Your task to perform on an android device: open sync settings in chrome Image 0: 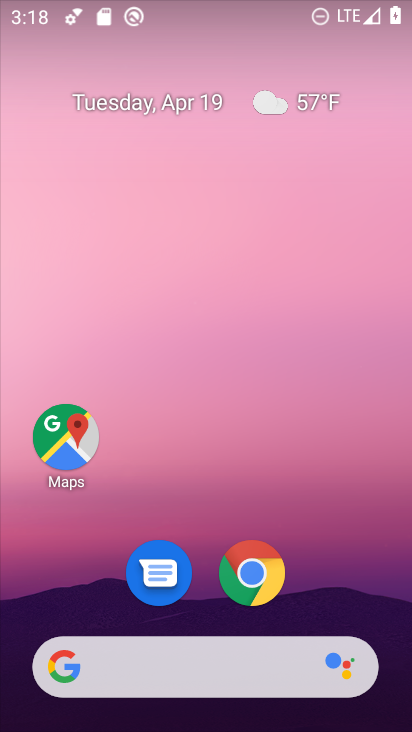
Step 0: click (241, 582)
Your task to perform on an android device: open sync settings in chrome Image 1: 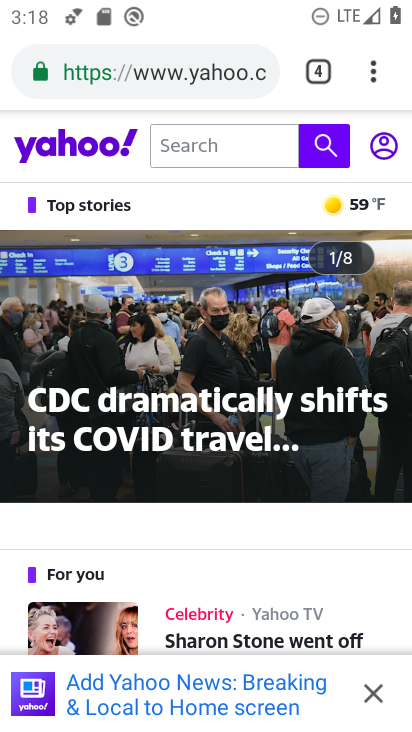
Step 1: click (373, 66)
Your task to perform on an android device: open sync settings in chrome Image 2: 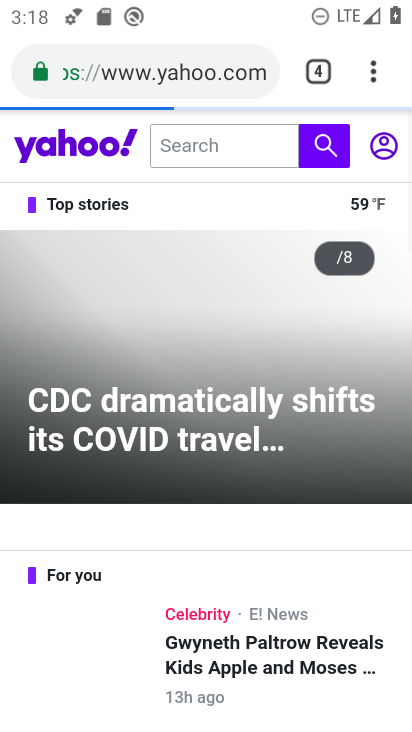
Step 2: click (373, 66)
Your task to perform on an android device: open sync settings in chrome Image 3: 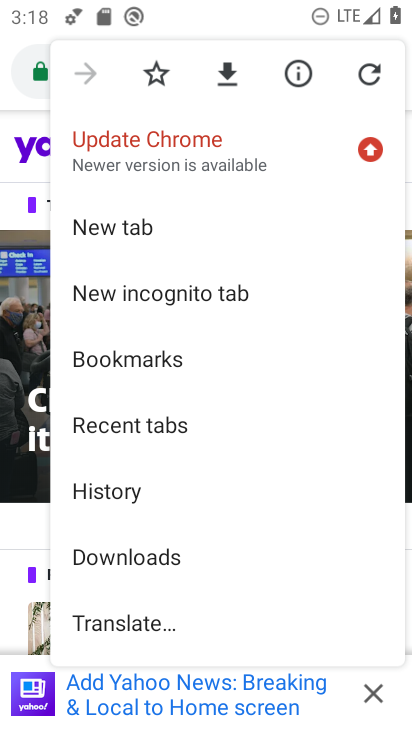
Step 3: drag from (324, 554) to (323, 120)
Your task to perform on an android device: open sync settings in chrome Image 4: 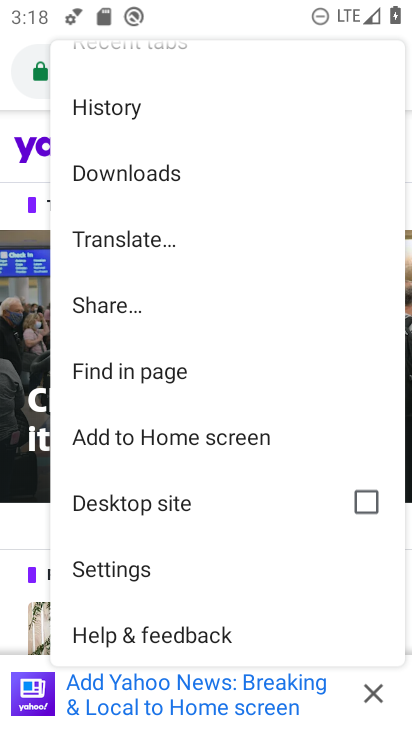
Step 4: click (134, 568)
Your task to perform on an android device: open sync settings in chrome Image 5: 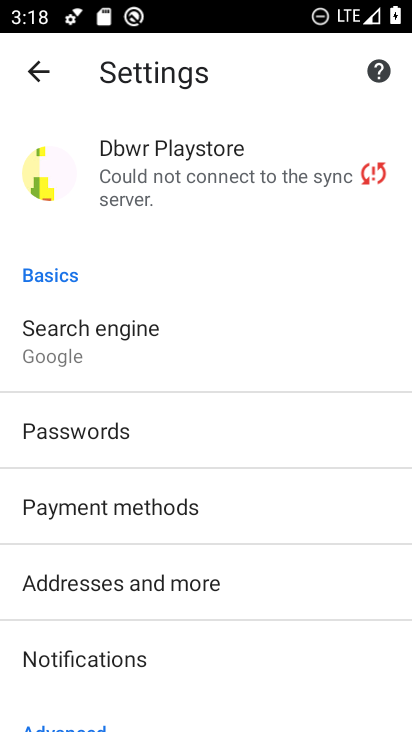
Step 5: click (124, 185)
Your task to perform on an android device: open sync settings in chrome Image 6: 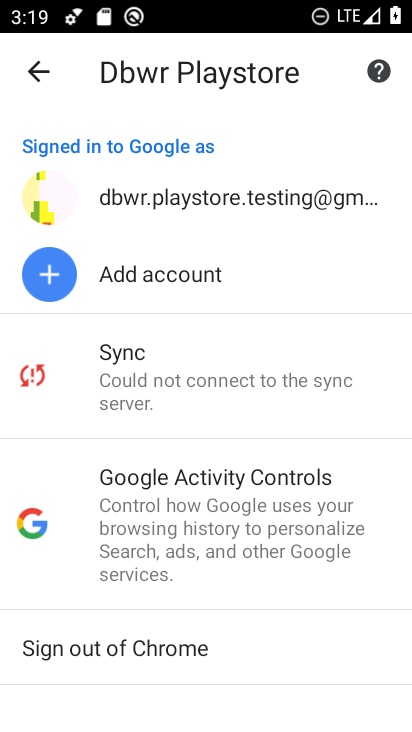
Step 6: click (153, 379)
Your task to perform on an android device: open sync settings in chrome Image 7: 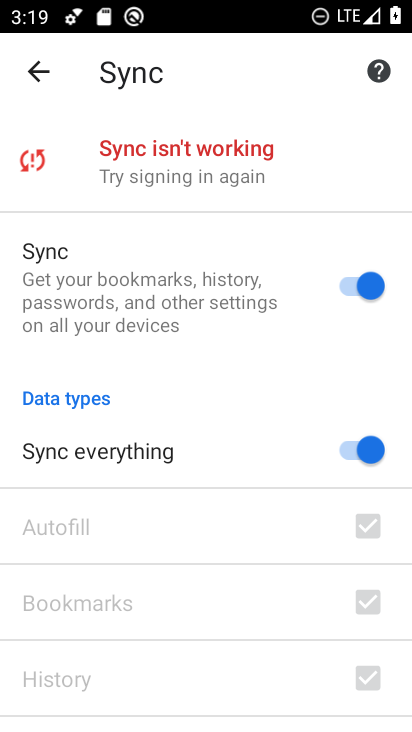
Step 7: task complete